Your task to perform on an android device: change keyboard looks Image 0: 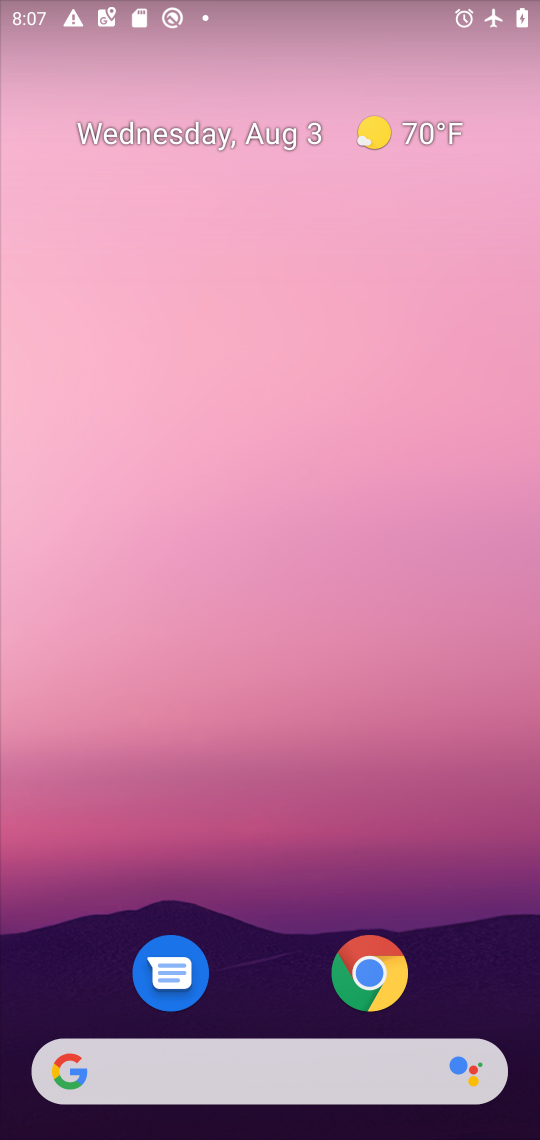
Step 0: drag from (270, 1004) to (342, 37)
Your task to perform on an android device: change keyboard looks Image 1: 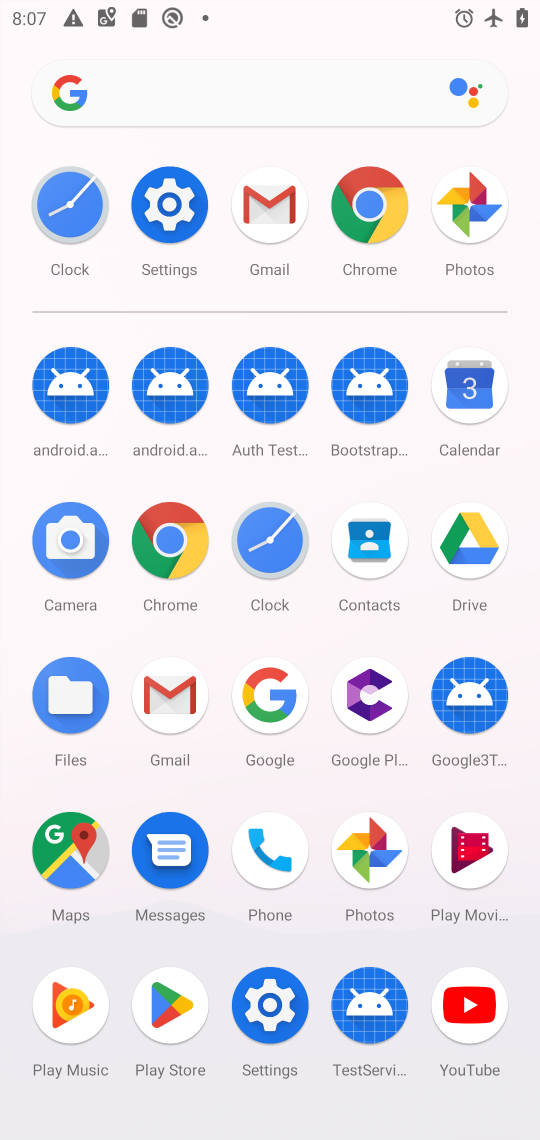
Step 1: click (165, 186)
Your task to perform on an android device: change keyboard looks Image 2: 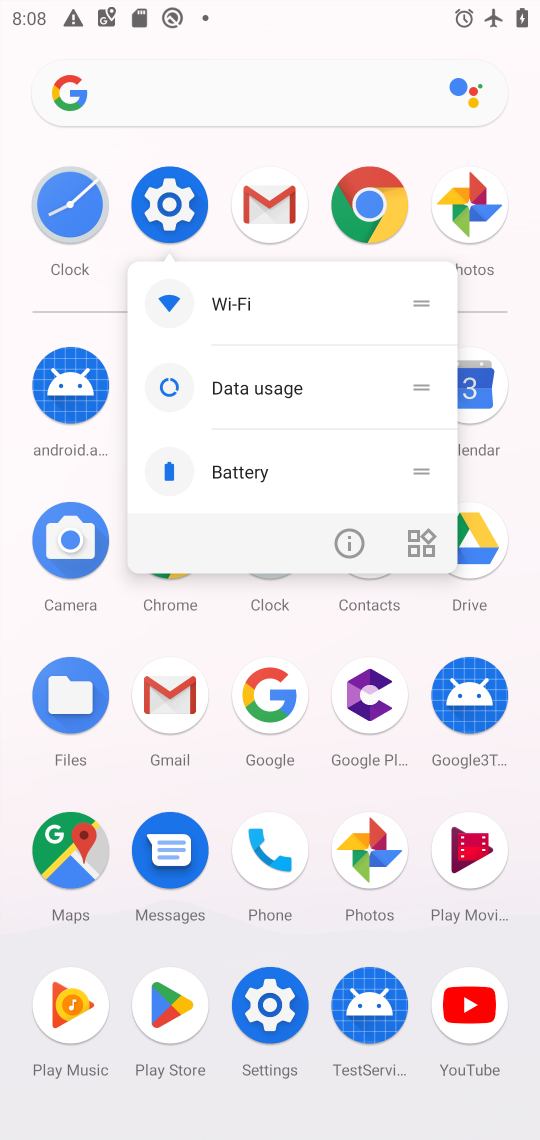
Step 2: click (165, 186)
Your task to perform on an android device: change keyboard looks Image 3: 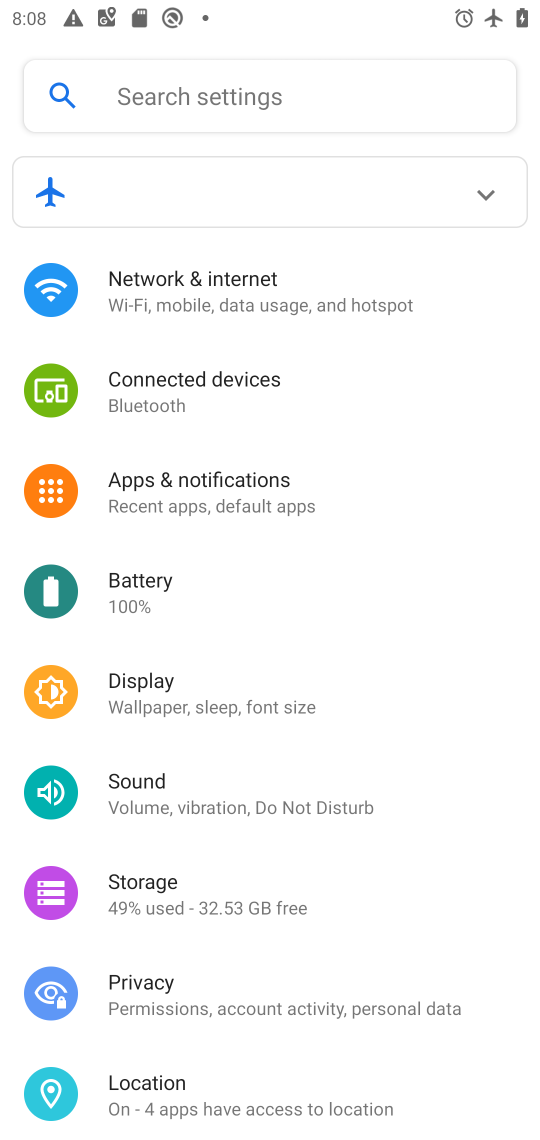
Step 3: drag from (233, 1070) to (297, 145)
Your task to perform on an android device: change keyboard looks Image 4: 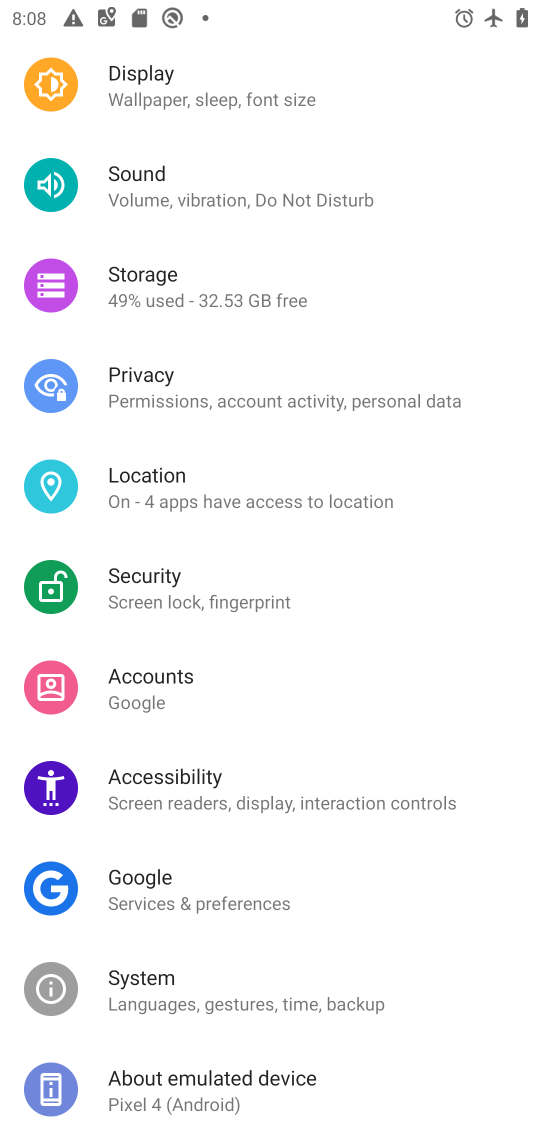
Step 4: click (85, 991)
Your task to perform on an android device: change keyboard looks Image 5: 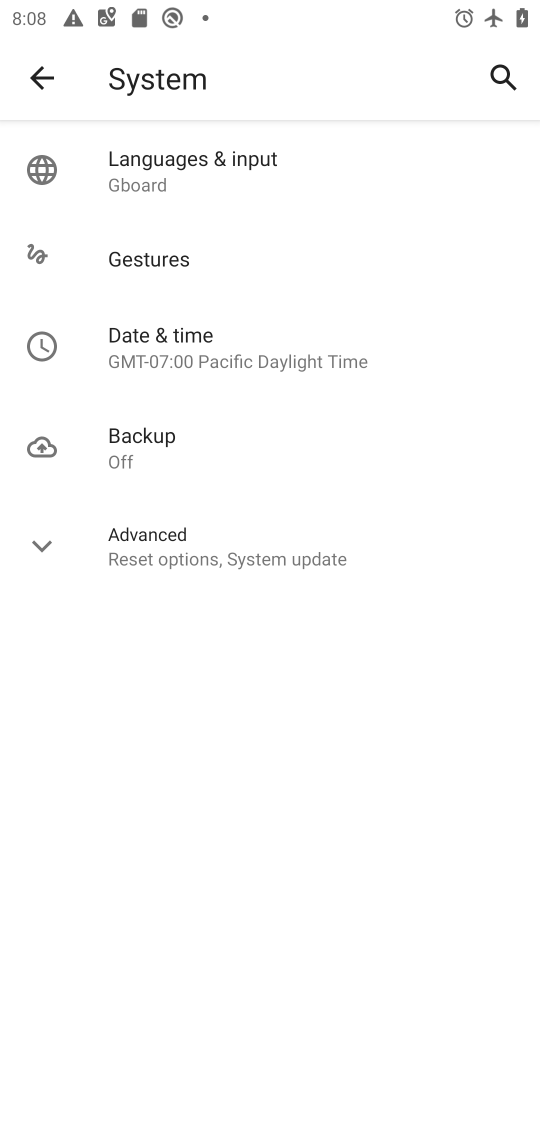
Step 5: click (79, 162)
Your task to perform on an android device: change keyboard looks Image 6: 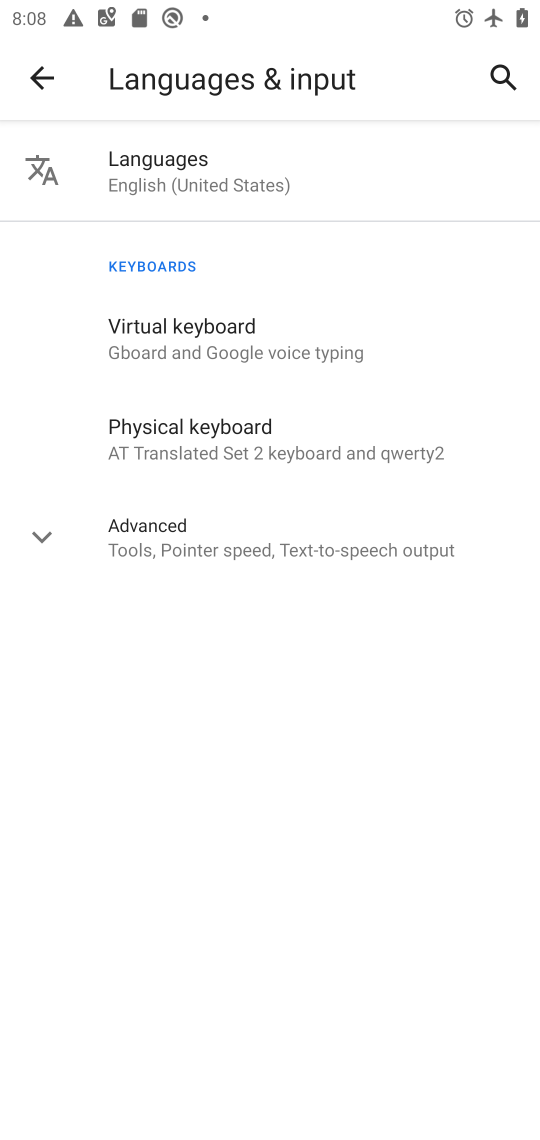
Step 6: click (175, 335)
Your task to perform on an android device: change keyboard looks Image 7: 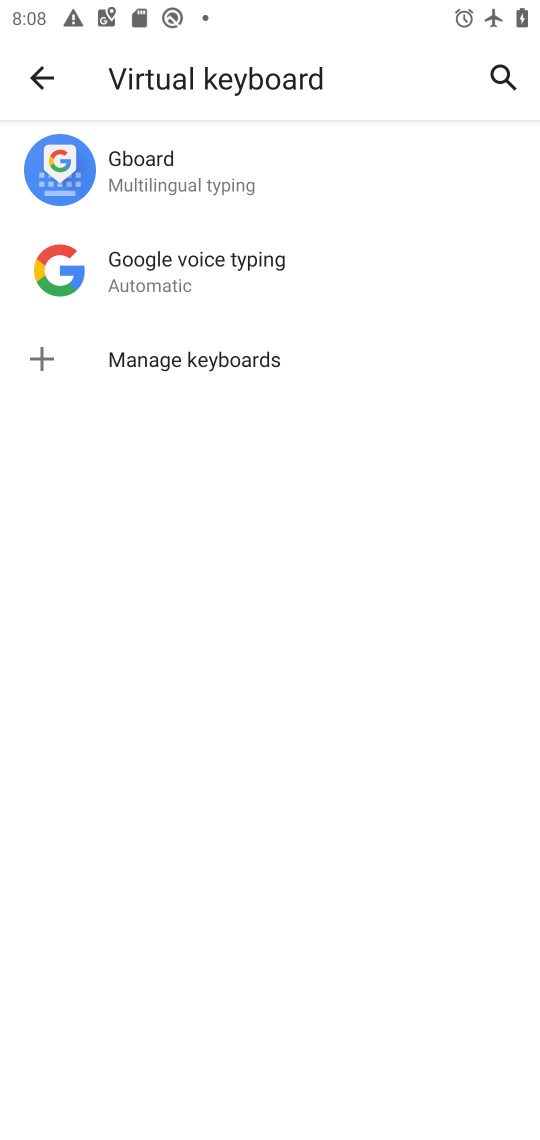
Step 7: click (162, 168)
Your task to perform on an android device: change keyboard looks Image 8: 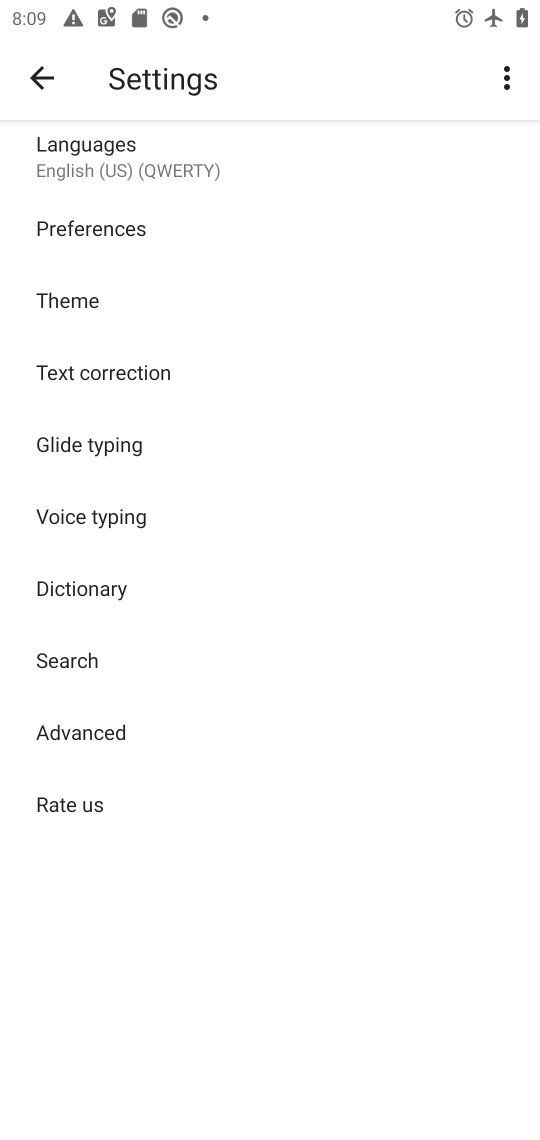
Step 8: click (133, 295)
Your task to perform on an android device: change keyboard looks Image 9: 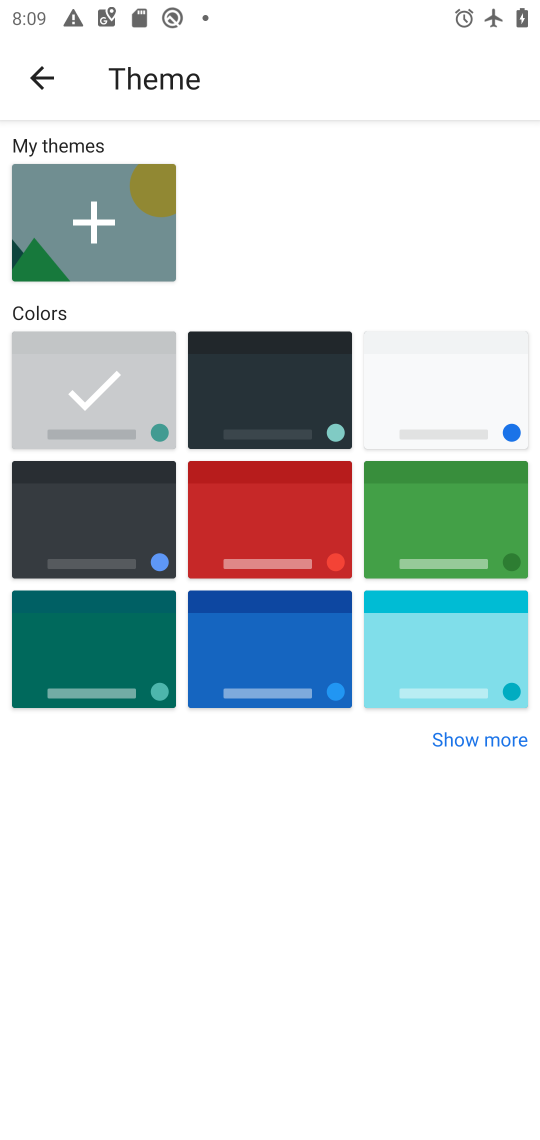
Step 9: click (273, 379)
Your task to perform on an android device: change keyboard looks Image 10: 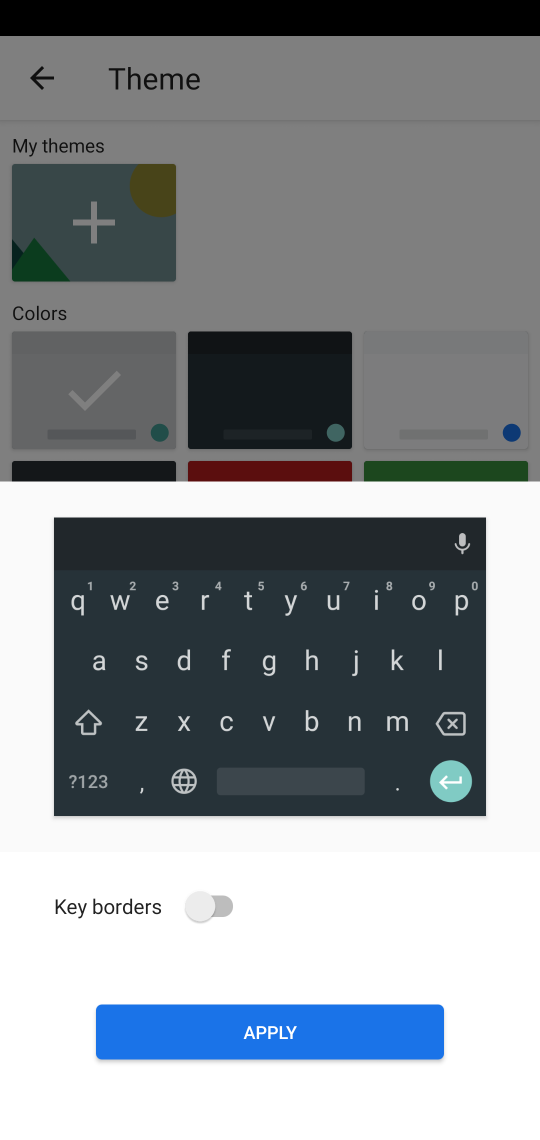
Step 10: click (259, 1028)
Your task to perform on an android device: change keyboard looks Image 11: 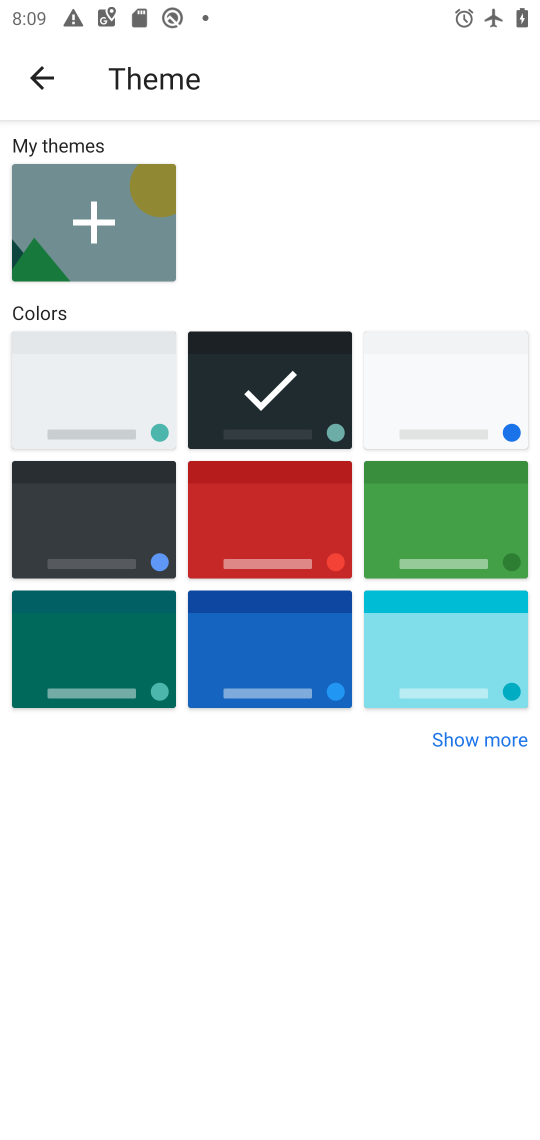
Step 11: task complete